Your task to perform on an android device: make emails show in primary in the gmail app Image 0: 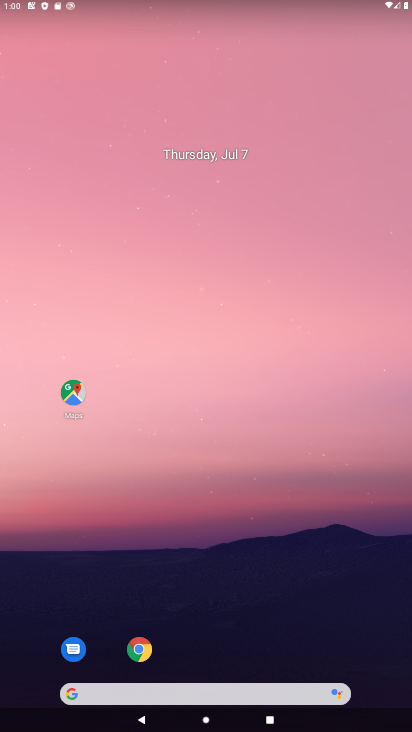
Step 0: drag from (203, 594) to (232, 196)
Your task to perform on an android device: make emails show in primary in the gmail app Image 1: 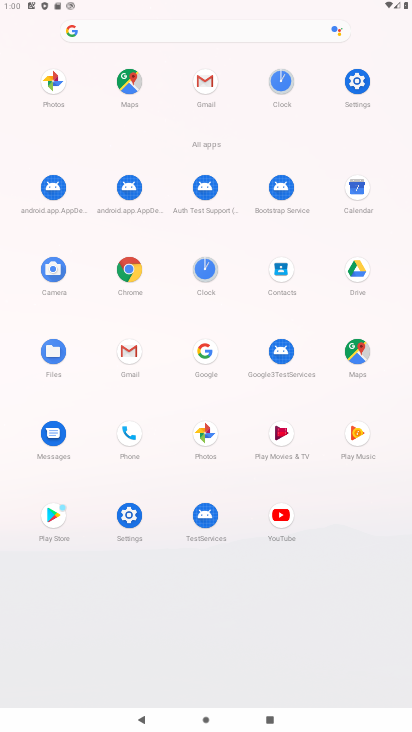
Step 1: click (132, 362)
Your task to perform on an android device: make emails show in primary in the gmail app Image 2: 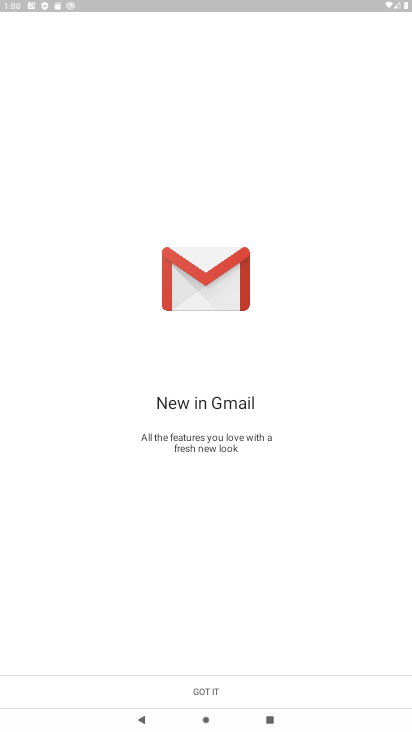
Step 2: click (223, 705)
Your task to perform on an android device: make emails show in primary in the gmail app Image 3: 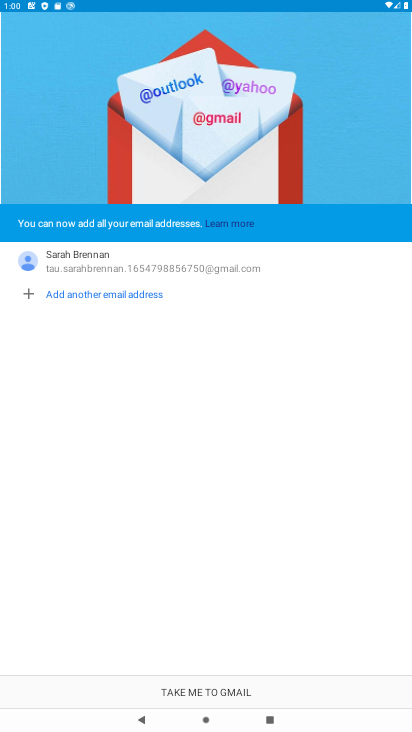
Step 3: click (222, 697)
Your task to perform on an android device: make emails show in primary in the gmail app Image 4: 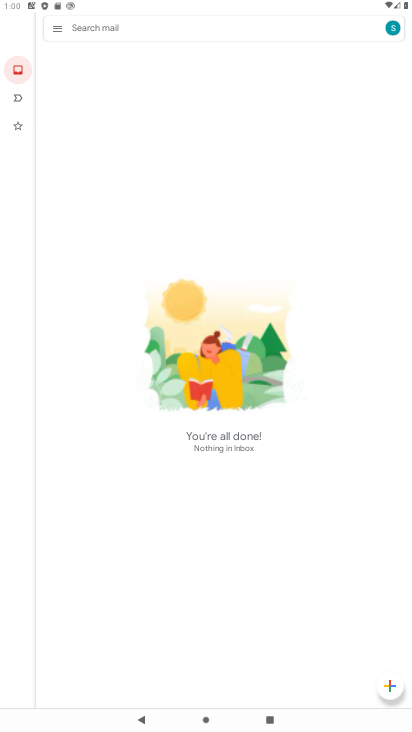
Step 4: click (54, 35)
Your task to perform on an android device: make emails show in primary in the gmail app Image 5: 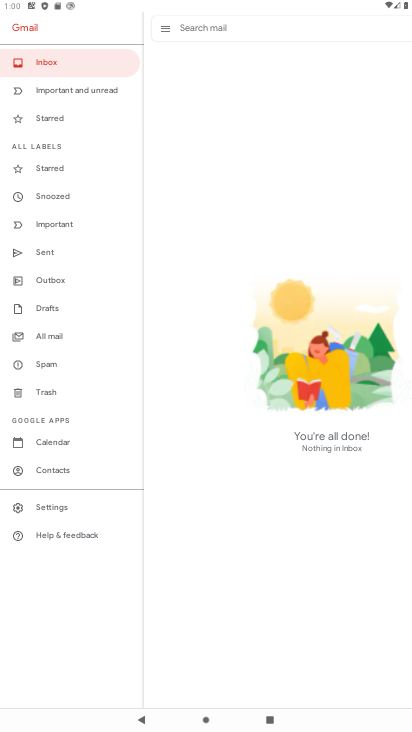
Step 5: click (79, 511)
Your task to perform on an android device: make emails show in primary in the gmail app Image 6: 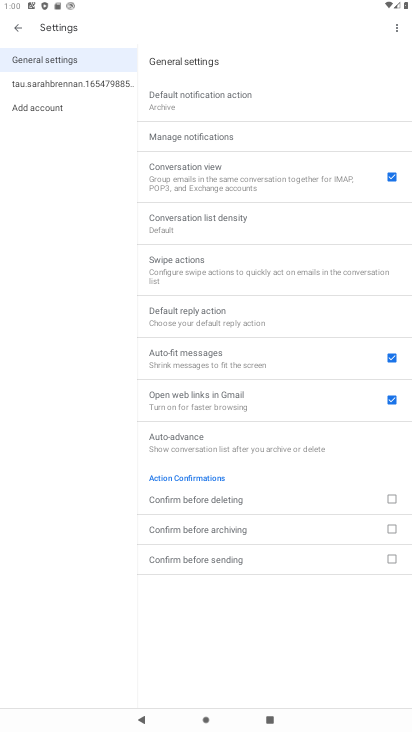
Step 6: click (86, 83)
Your task to perform on an android device: make emails show in primary in the gmail app Image 7: 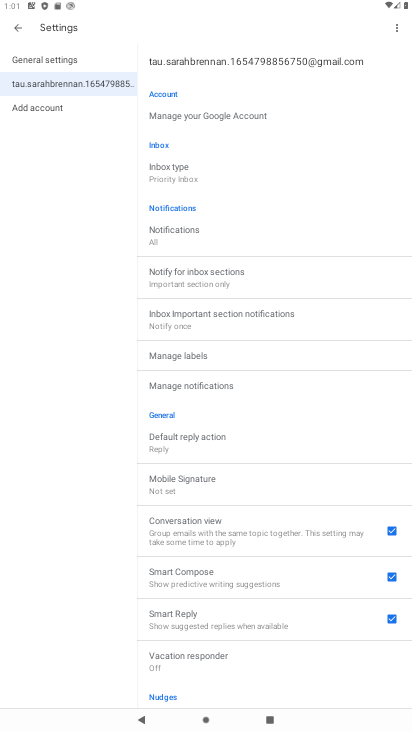
Step 7: click (229, 173)
Your task to perform on an android device: make emails show in primary in the gmail app Image 8: 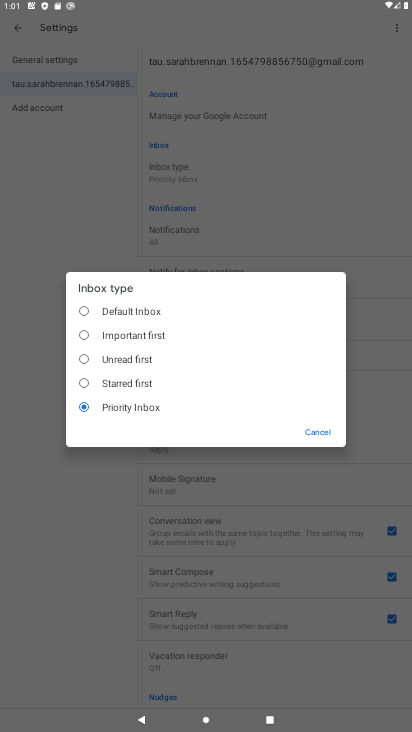
Step 8: click (162, 308)
Your task to perform on an android device: make emails show in primary in the gmail app Image 9: 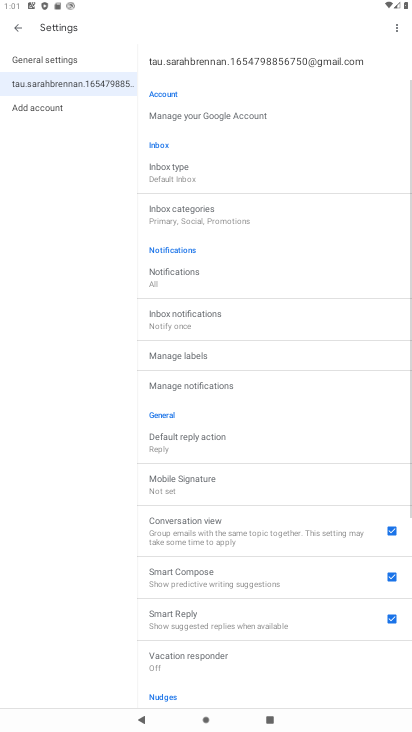
Step 9: click (268, 220)
Your task to perform on an android device: make emails show in primary in the gmail app Image 10: 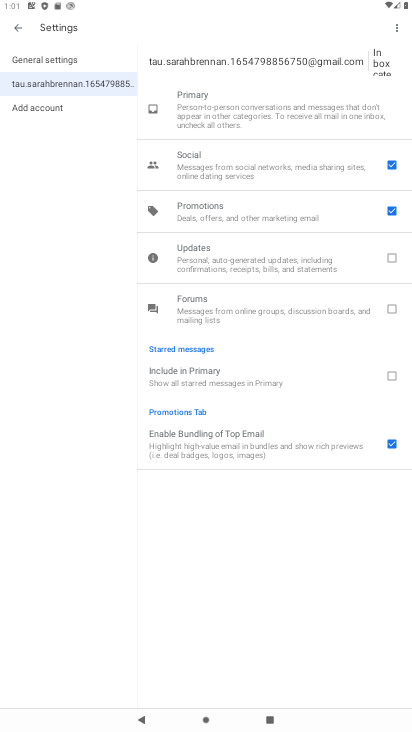
Step 10: click (393, 374)
Your task to perform on an android device: make emails show in primary in the gmail app Image 11: 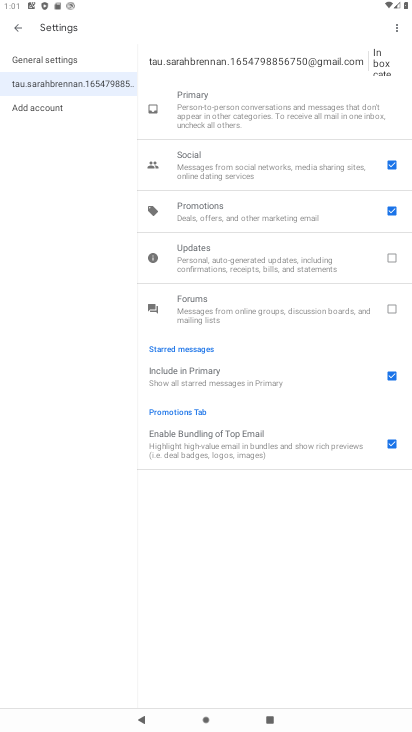
Step 11: task complete